Your task to perform on an android device: turn smart compose on in the gmail app Image 0: 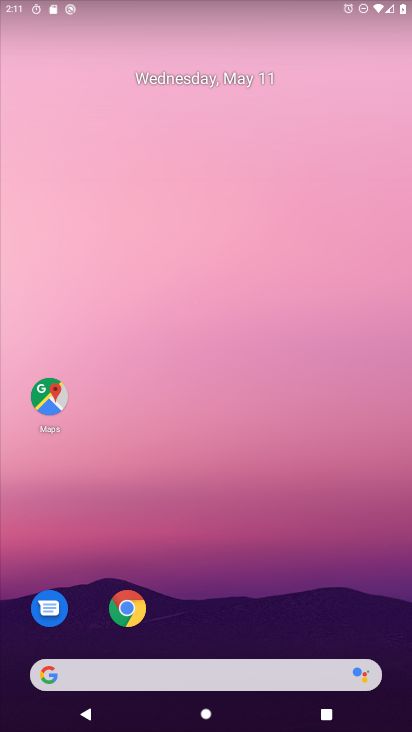
Step 0: drag from (258, 682) to (269, 56)
Your task to perform on an android device: turn smart compose on in the gmail app Image 1: 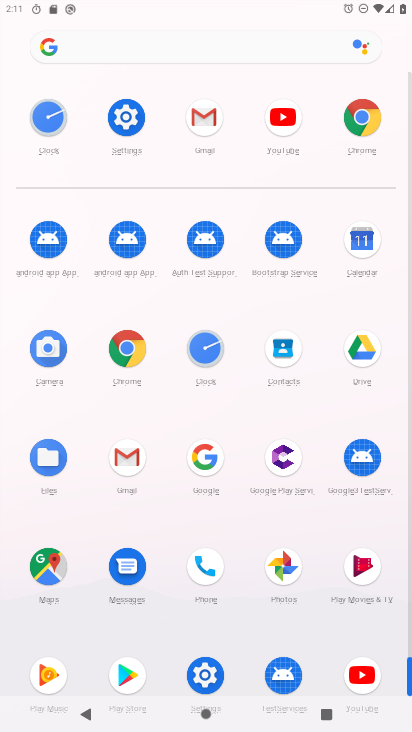
Step 1: click (134, 469)
Your task to perform on an android device: turn smart compose on in the gmail app Image 2: 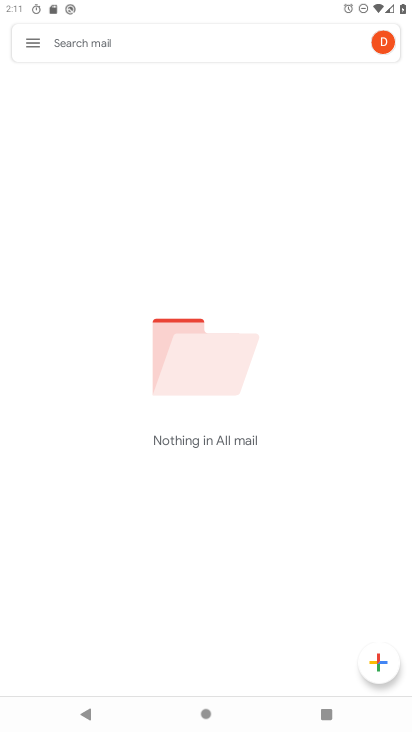
Step 2: click (40, 47)
Your task to perform on an android device: turn smart compose on in the gmail app Image 3: 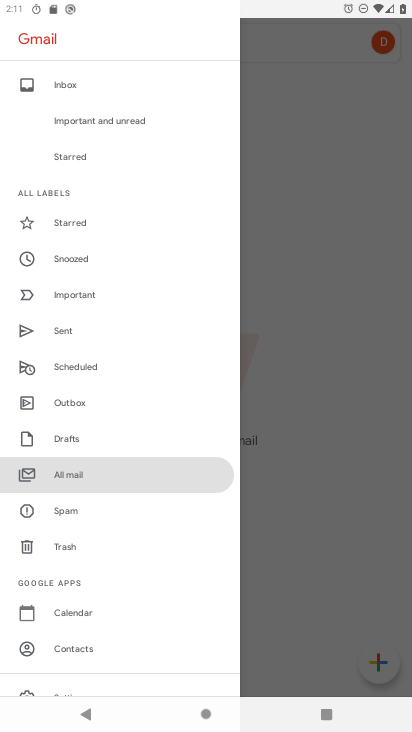
Step 3: drag from (79, 613) to (113, 192)
Your task to perform on an android device: turn smart compose on in the gmail app Image 4: 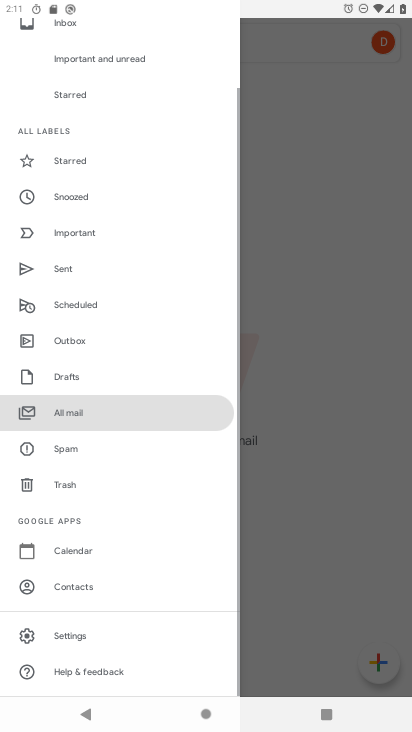
Step 4: click (80, 629)
Your task to perform on an android device: turn smart compose on in the gmail app Image 5: 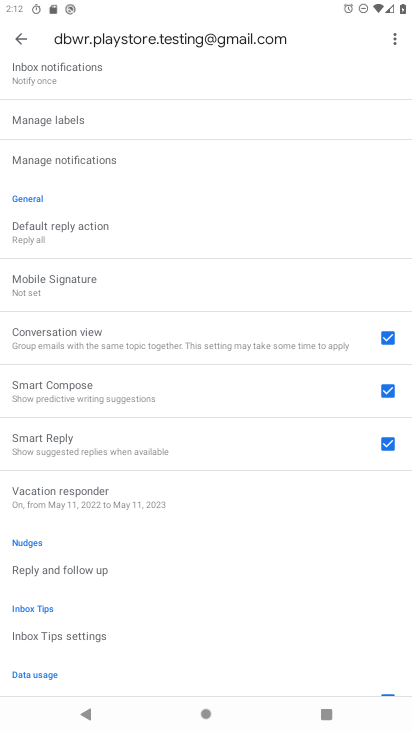
Step 5: task complete